Your task to perform on an android device: Go to internet settings Image 0: 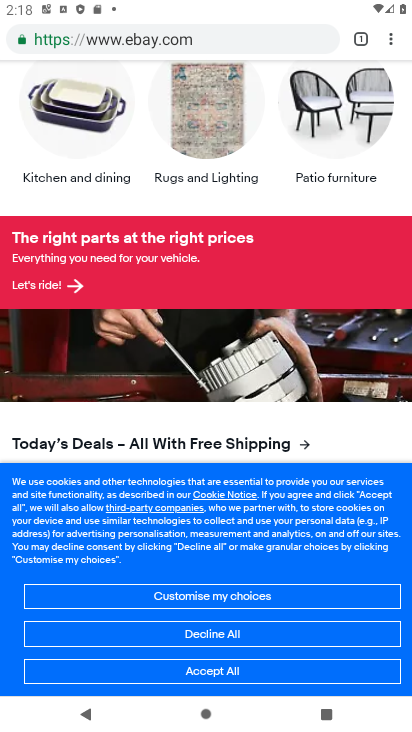
Step 0: press home button
Your task to perform on an android device: Go to internet settings Image 1: 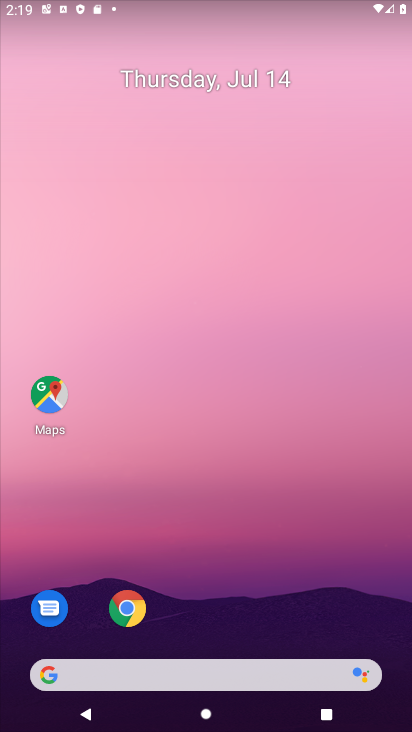
Step 1: drag from (383, 626) to (316, 81)
Your task to perform on an android device: Go to internet settings Image 2: 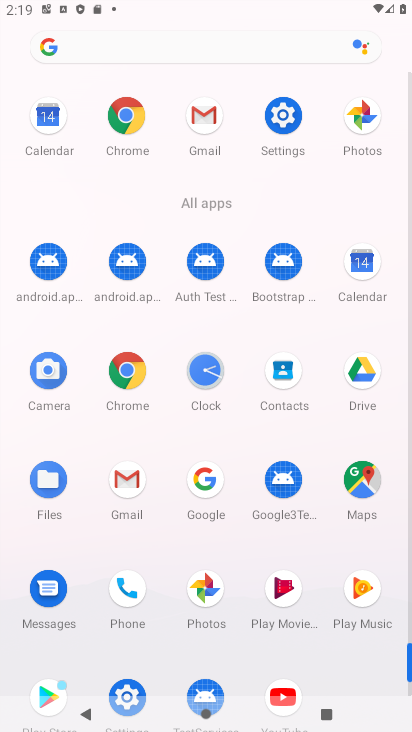
Step 2: drag from (257, 636) to (232, 304)
Your task to perform on an android device: Go to internet settings Image 3: 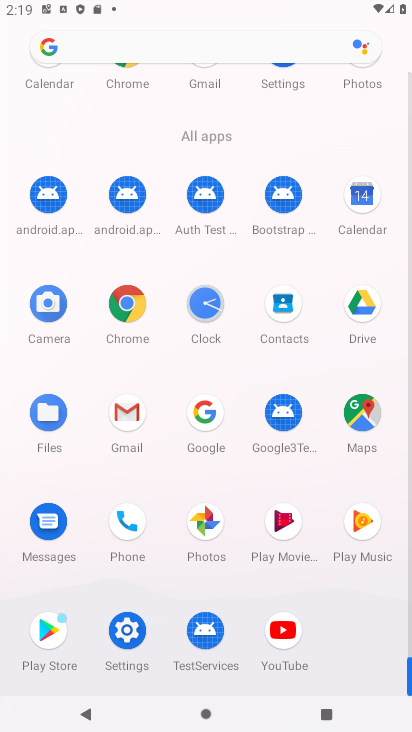
Step 3: click (125, 631)
Your task to perform on an android device: Go to internet settings Image 4: 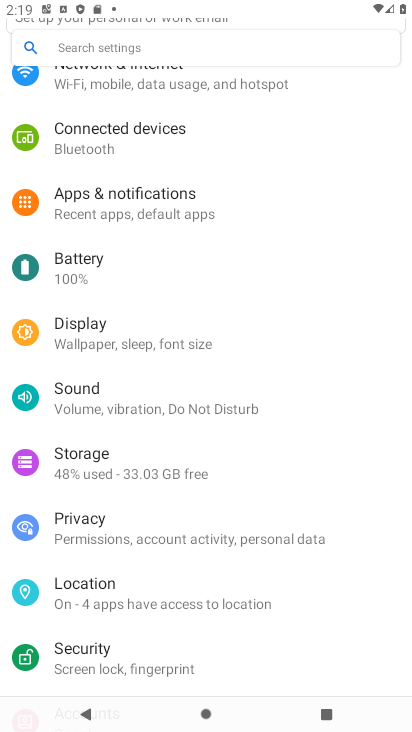
Step 4: drag from (305, 188) to (309, 379)
Your task to perform on an android device: Go to internet settings Image 5: 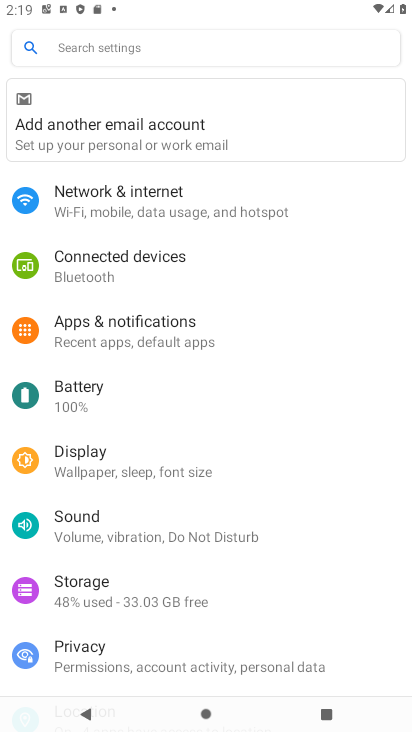
Step 5: click (99, 198)
Your task to perform on an android device: Go to internet settings Image 6: 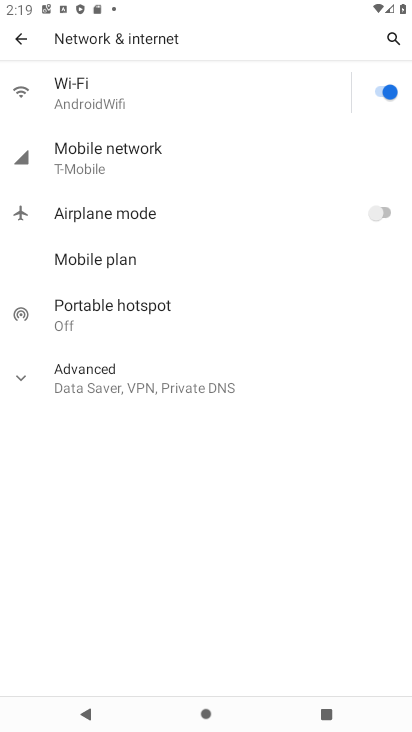
Step 6: click (58, 77)
Your task to perform on an android device: Go to internet settings Image 7: 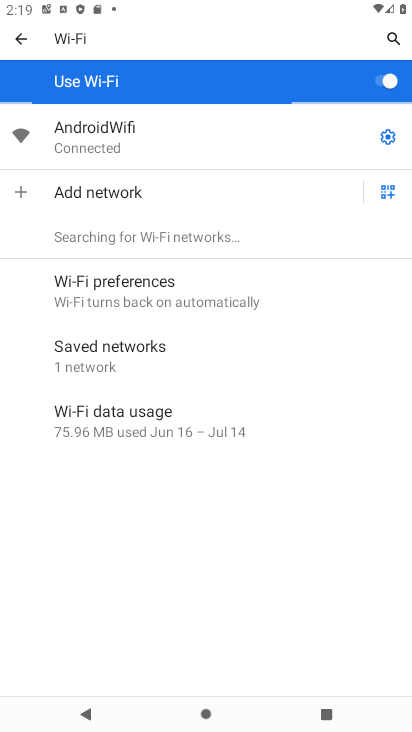
Step 7: click (385, 138)
Your task to perform on an android device: Go to internet settings Image 8: 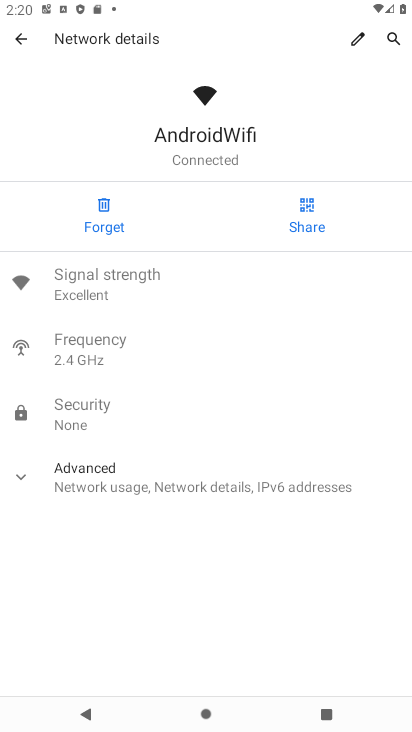
Step 8: task complete